Your task to perform on an android device: change the upload size in google photos Image 0: 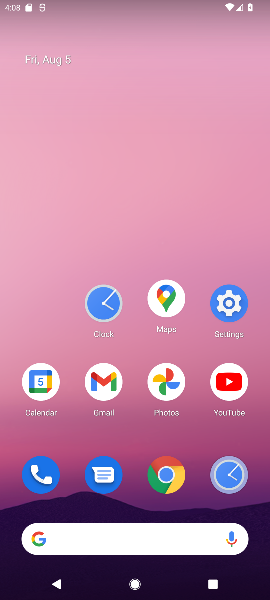
Step 0: click (164, 383)
Your task to perform on an android device: change the upload size in google photos Image 1: 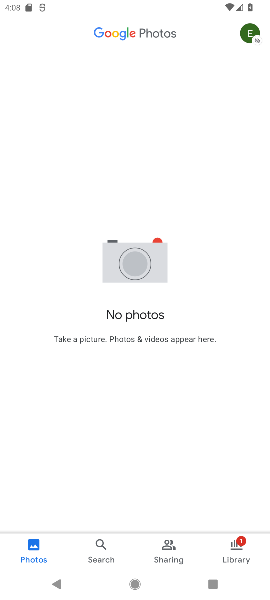
Step 1: click (252, 34)
Your task to perform on an android device: change the upload size in google photos Image 2: 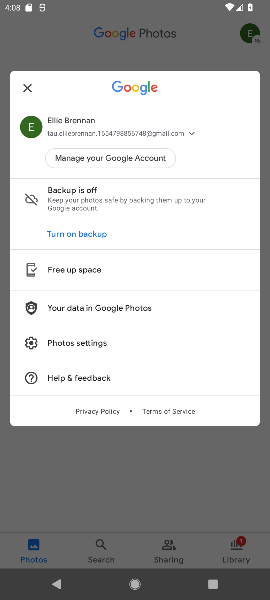
Step 2: click (99, 338)
Your task to perform on an android device: change the upload size in google photos Image 3: 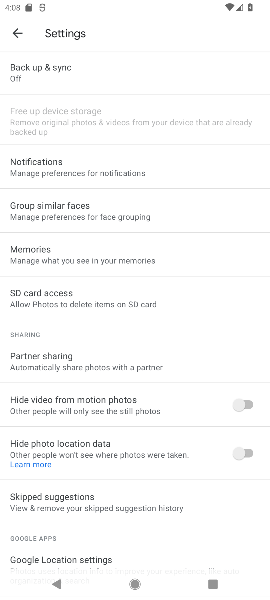
Step 3: click (58, 69)
Your task to perform on an android device: change the upload size in google photos Image 4: 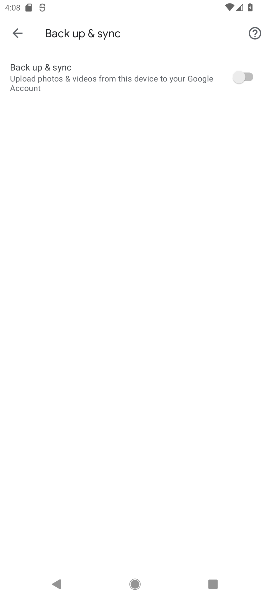
Step 4: click (21, 38)
Your task to perform on an android device: change the upload size in google photos Image 5: 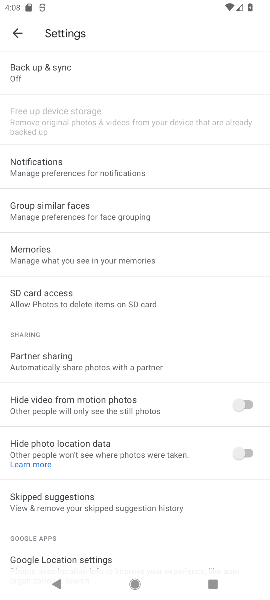
Step 5: click (68, 403)
Your task to perform on an android device: change the upload size in google photos Image 6: 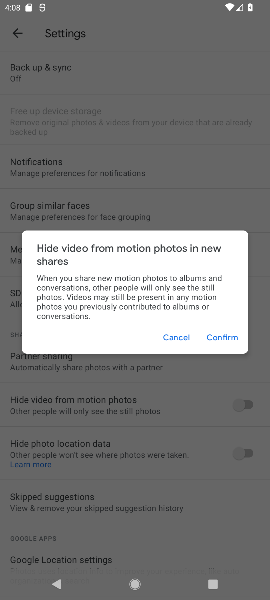
Step 6: click (104, 401)
Your task to perform on an android device: change the upload size in google photos Image 7: 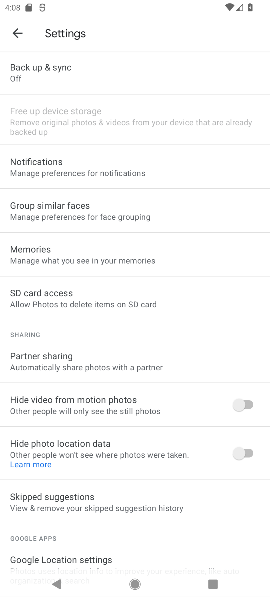
Step 7: task complete